Your task to perform on an android device: Open my contact list Image 0: 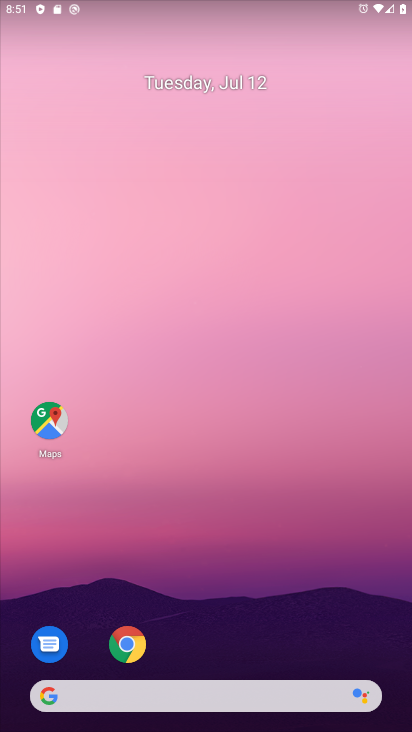
Step 0: drag from (280, 173) to (398, 665)
Your task to perform on an android device: Open my contact list Image 1: 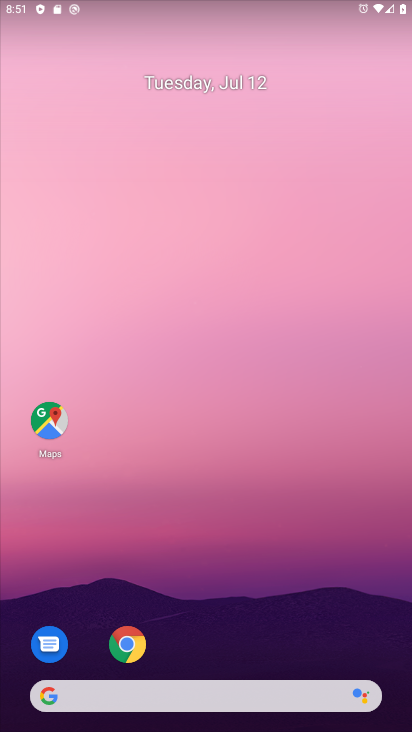
Step 1: drag from (35, 714) to (405, 590)
Your task to perform on an android device: Open my contact list Image 2: 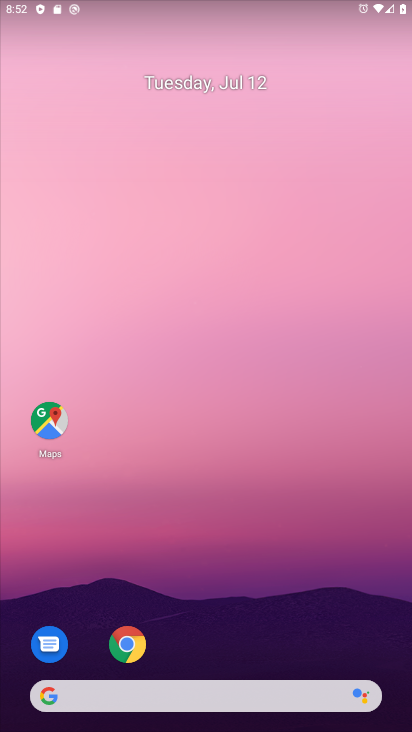
Step 2: drag from (38, 677) to (316, 9)
Your task to perform on an android device: Open my contact list Image 3: 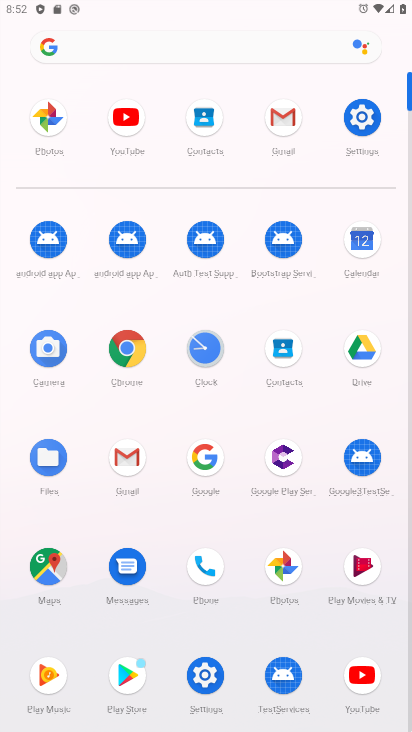
Step 3: click (292, 348)
Your task to perform on an android device: Open my contact list Image 4: 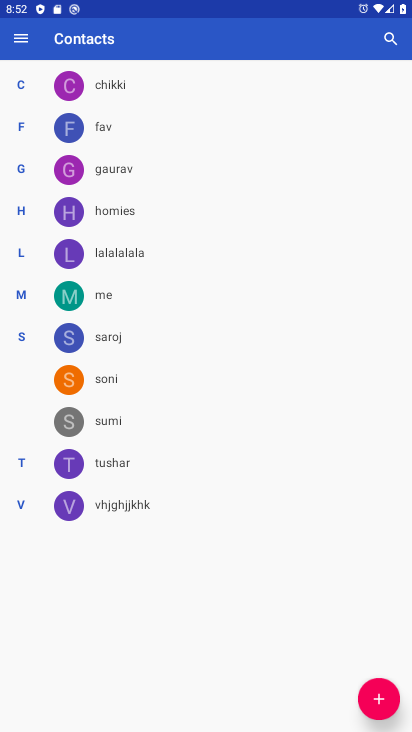
Step 4: task complete